Your task to perform on an android device: What is the recent news? Image 0: 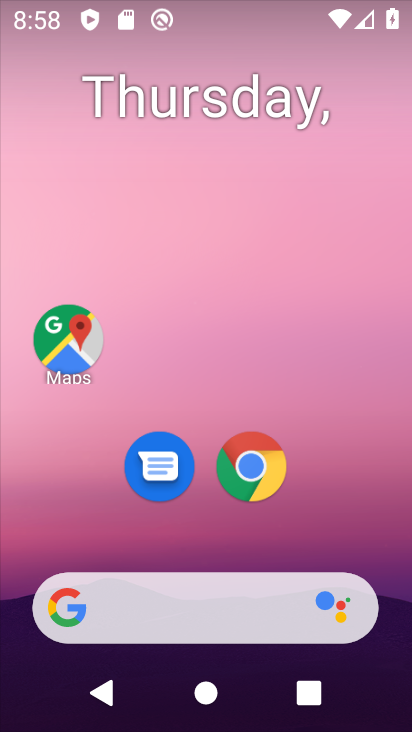
Step 0: press home button
Your task to perform on an android device: What is the recent news? Image 1: 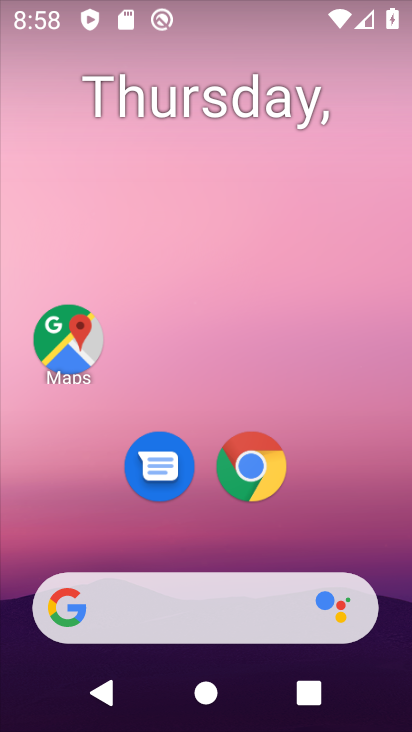
Step 1: click (73, 611)
Your task to perform on an android device: What is the recent news? Image 2: 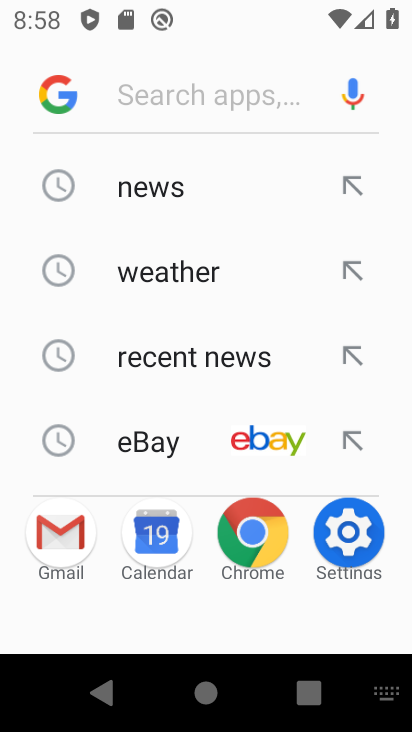
Step 2: click (174, 361)
Your task to perform on an android device: What is the recent news? Image 3: 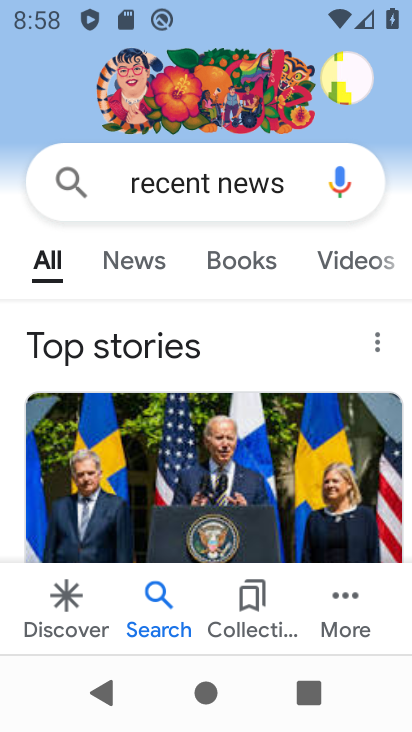
Step 3: click (125, 263)
Your task to perform on an android device: What is the recent news? Image 4: 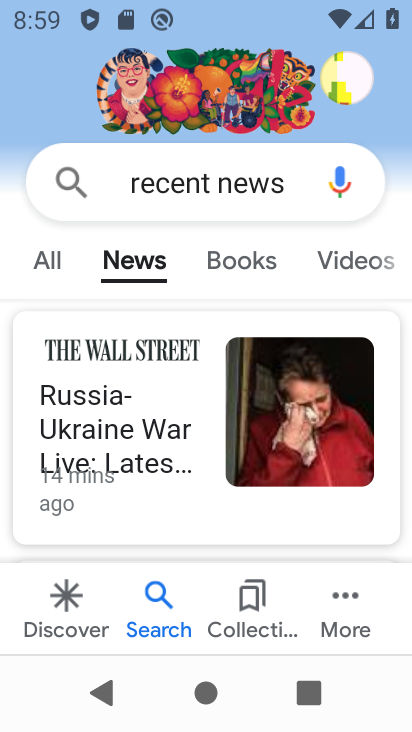
Step 4: task complete